Your task to perform on an android device: Go to Google Image 0: 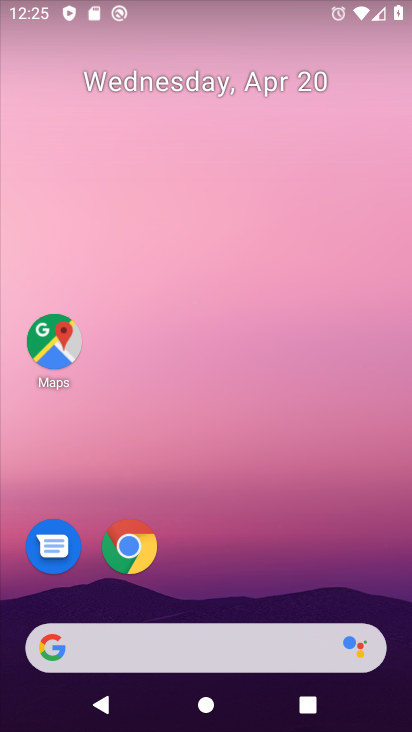
Step 0: drag from (251, 633) to (248, 134)
Your task to perform on an android device: Go to Google Image 1: 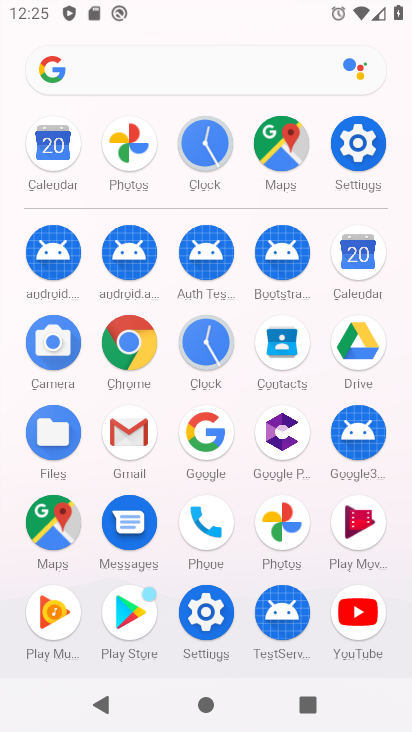
Step 1: click (209, 436)
Your task to perform on an android device: Go to Google Image 2: 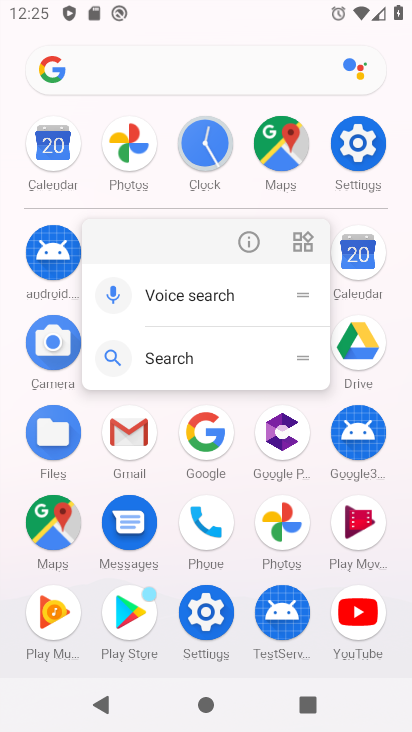
Step 2: click (209, 436)
Your task to perform on an android device: Go to Google Image 3: 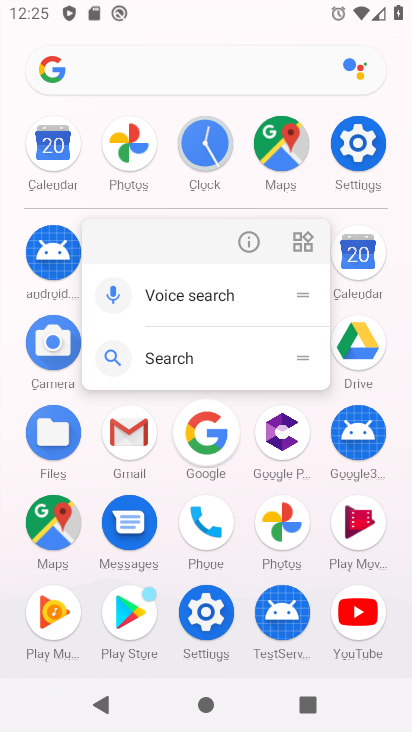
Step 3: click (209, 436)
Your task to perform on an android device: Go to Google Image 4: 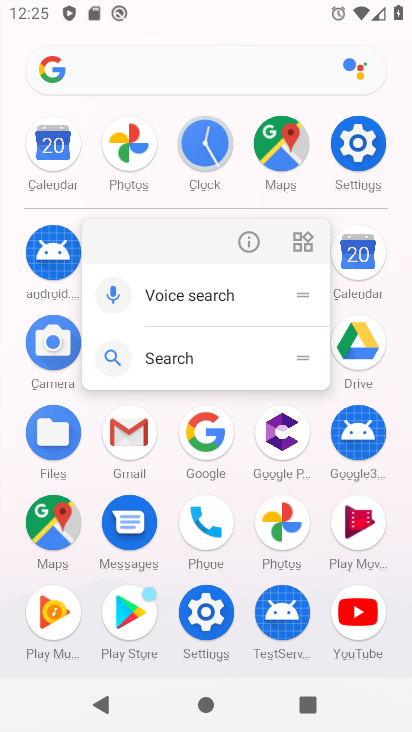
Step 4: click (209, 436)
Your task to perform on an android device: Go to Google Image 5: 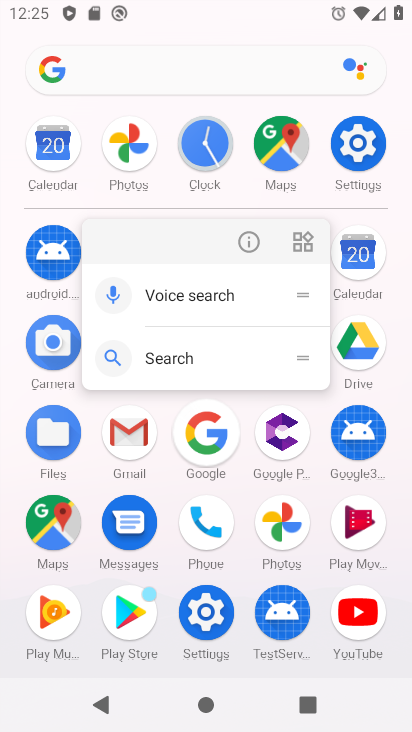
Step 5: click (209, 436)
Your task to perform on an android device: Go to Google Image 6: 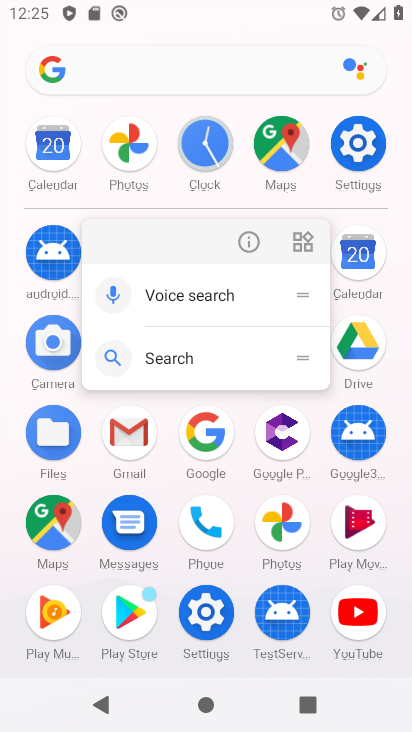
Step 6: click (209, 436)
Your task to perform on an android device: Go to Google Image 7: 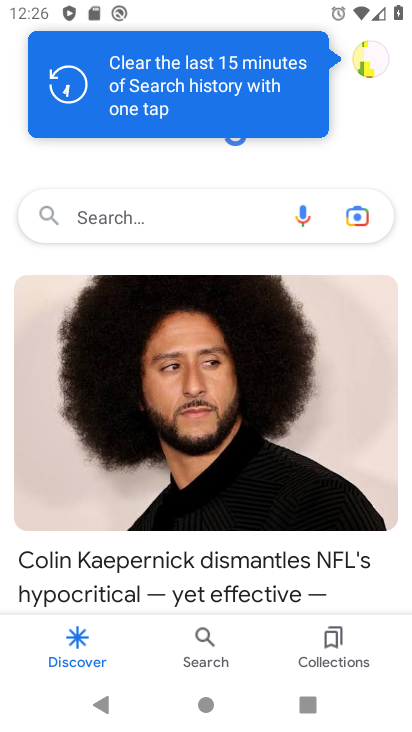
Step 7: task complete